Your task to perform on an android device: Open location settings Image 0: 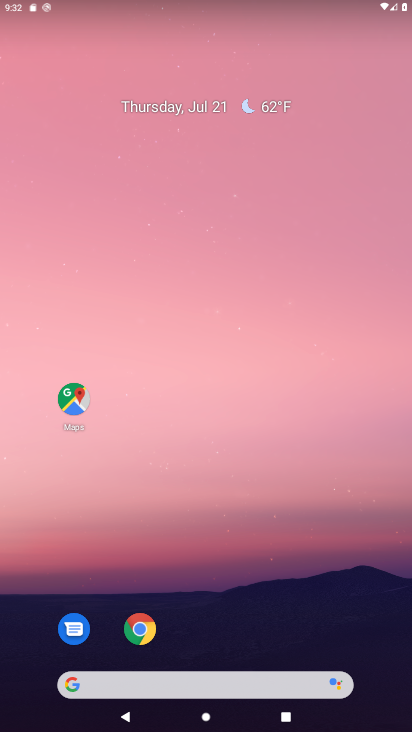
Step 0: drag from (337, 581) to (8, 12)
Your task to perform on an android device: Open location settings Image 1: 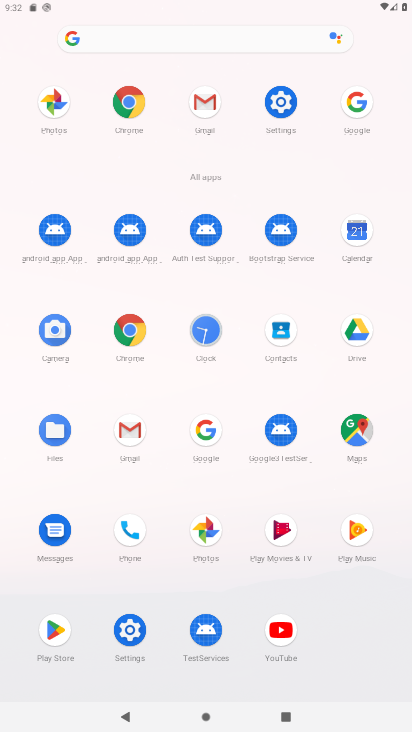
Step 1: click (283, 99)
Your task to perform on an android device: Open location settings Image 2: 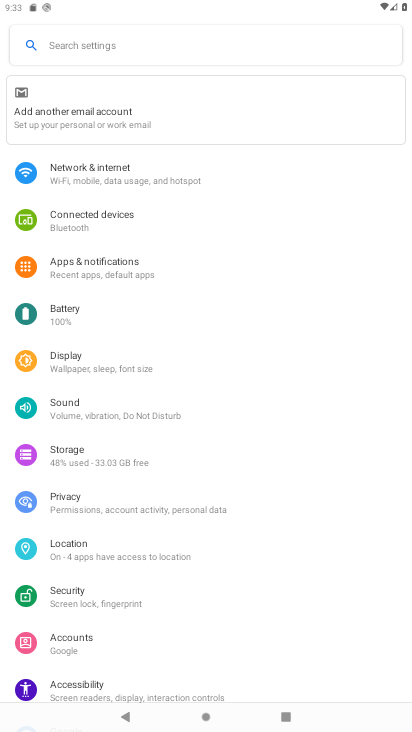
Step 2: click (113, 540)
Your task to perform on an android device: Open location settings Image 3: 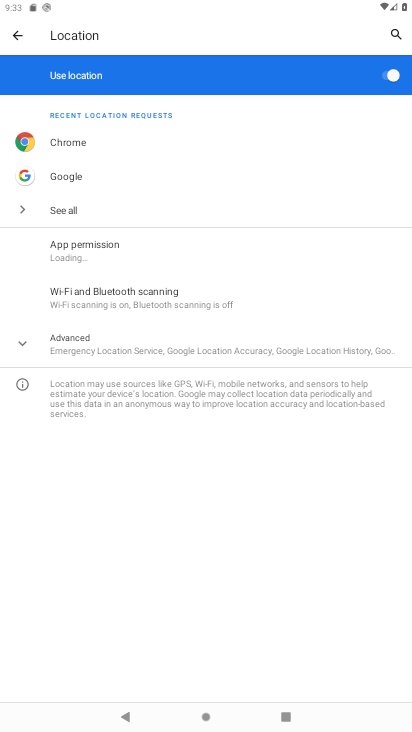
Step 3: click (176, 346)
Your task to perform on an android device: Open location settings Image 4: 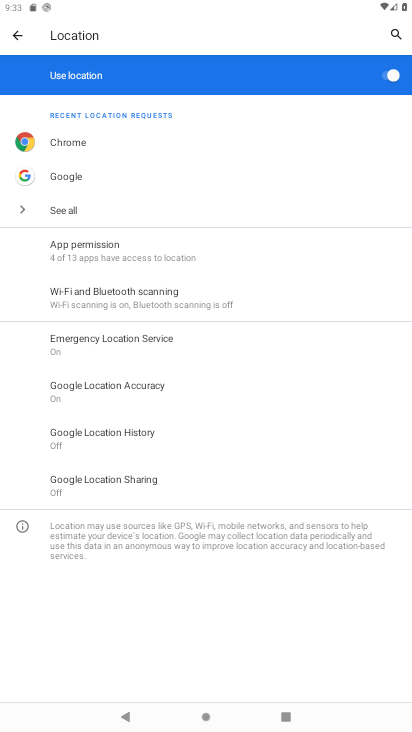
Step 4: click (393, 78)
Your task to perform on an android device: Open location settings Image 5: 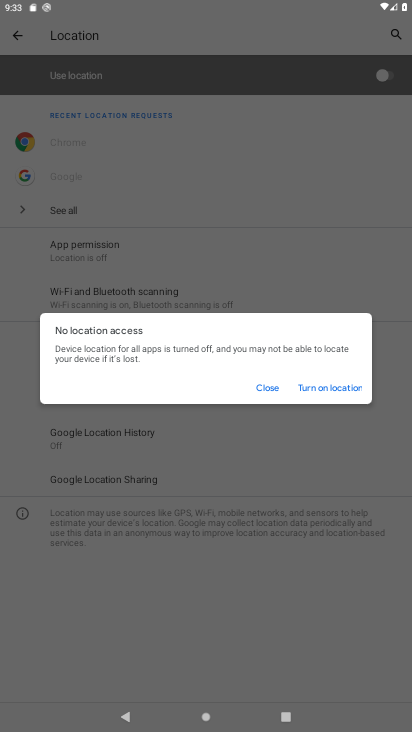
Step 5: click (383, 67)
Your task to perform on an android device: Open location settings Image 6: 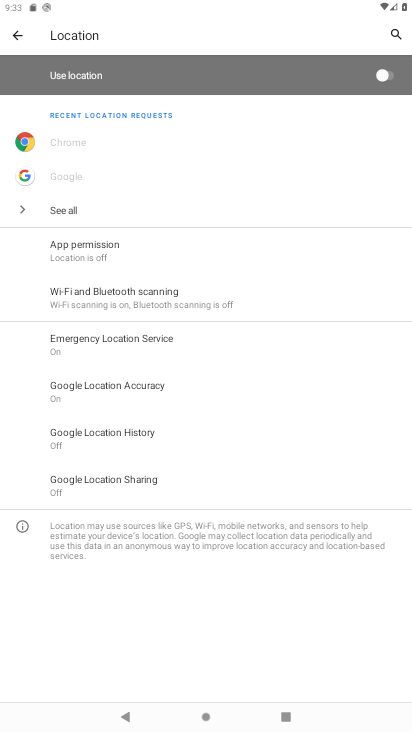
Step 6: task complete